Your task to perform on an android device: turn on airplane mode Image 0: 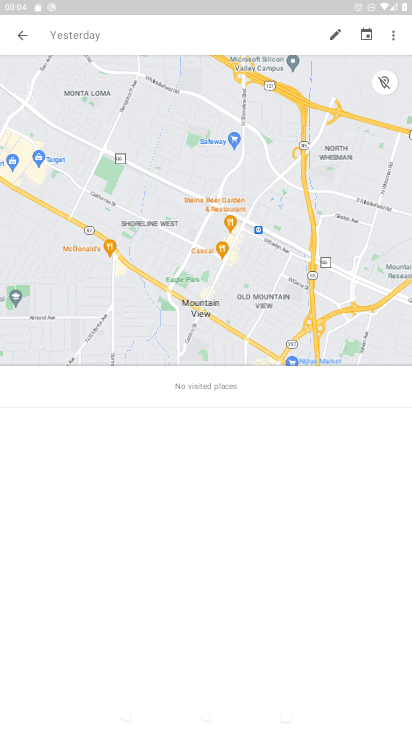
Step 0: press home button
Your task to perform on an android device: turn on airplane mode Image 1: 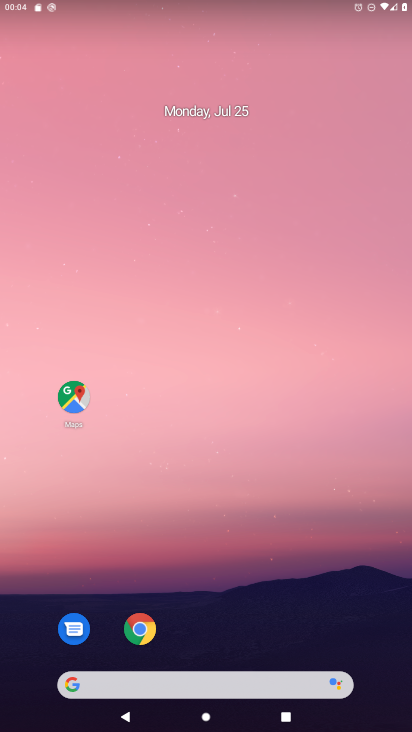
Step 1: drag from (170, 647) to (192, 141)
Your task to perform on an android device: turn on airplane mode Image 2: 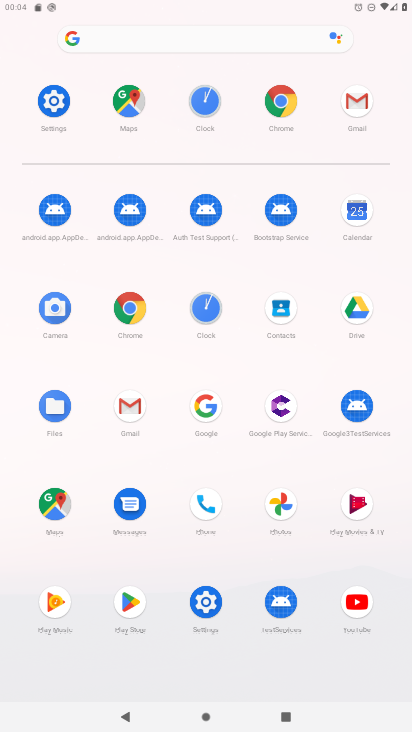
Step 2: click (207, 589)
Your task to perform on an android device: turn on airplane mode Image 3: 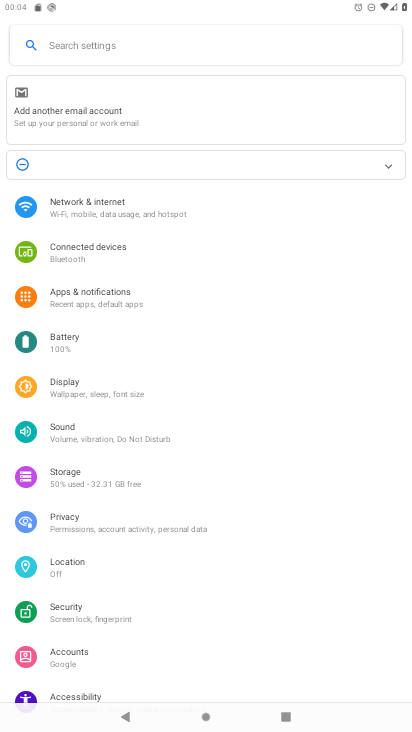
Step 3: click (95, 205)
Your task to perform on an android device: turn on airplane mode Image 4: 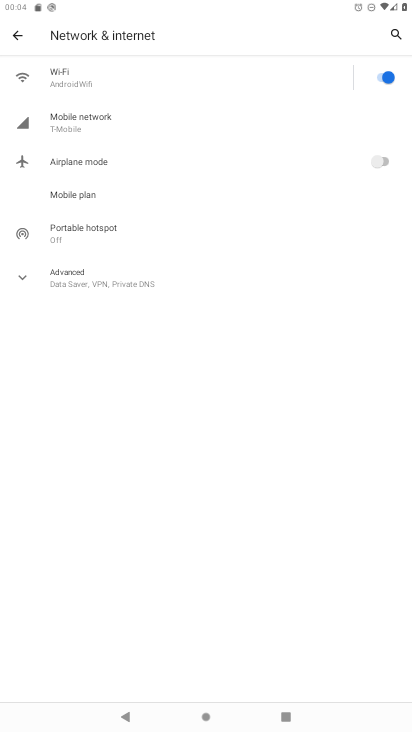
Step 4: click (91, 159)
Your task to perform on an android device: turn on airplane mode Image 5: 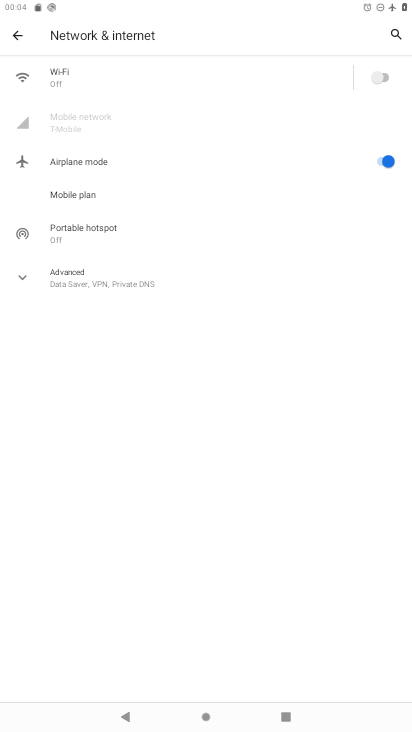
Step 5: task complete